Your task to perform on an android device: Open calendar and show me the fourth week of next month Image 0: 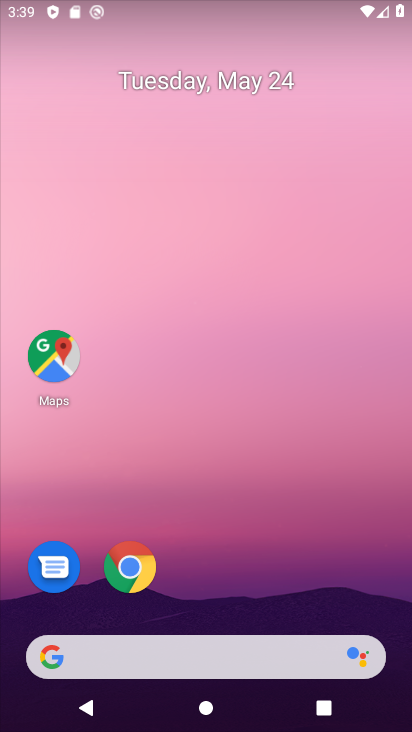
Step 0: drag from (174, 611) to (196, 62)
Your task to perform on an android device: Open calendar and show me the fourth week of next month Image 1: 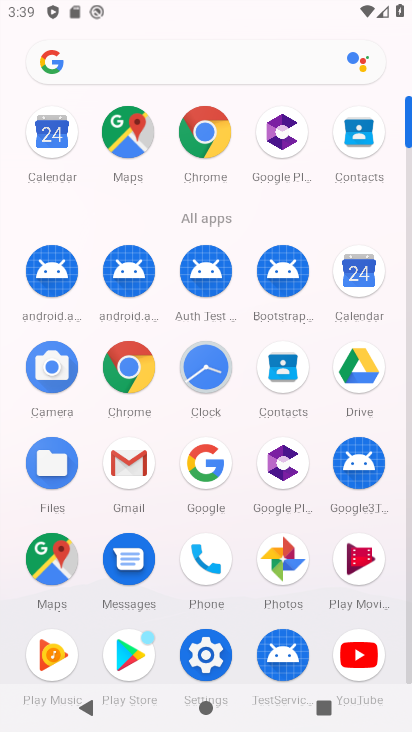
Step 1: click (366, 282)
Your task to perform on an android device: Open calendar and show me the fourth week of next month Image 2: 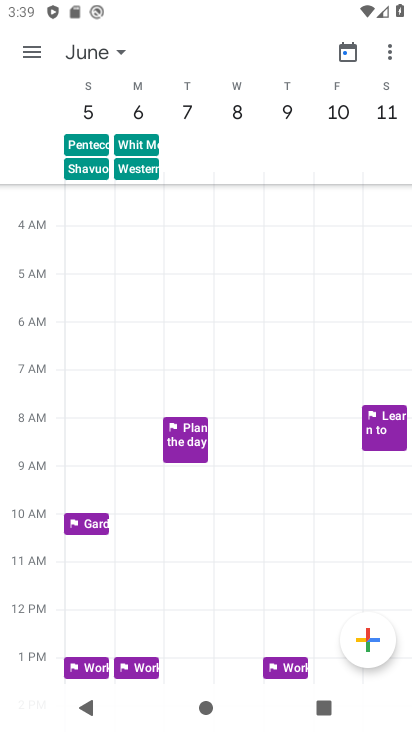
Step 2: task complete